Your task to perform on an android device: turn on wifi Image 0: 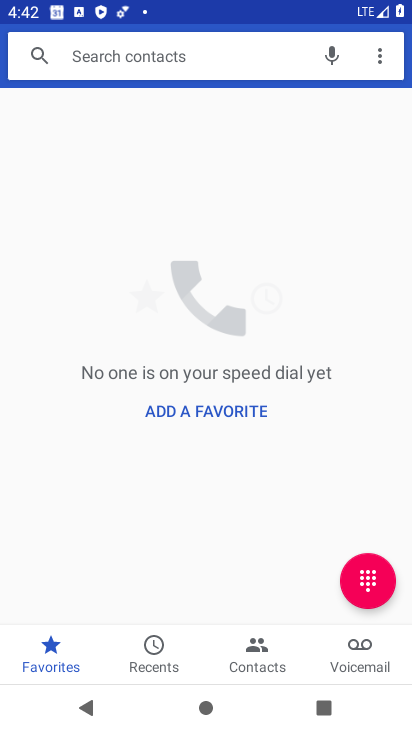
Step 0: press home button
Your task to perform on an android device: turn on wifi Image 1: 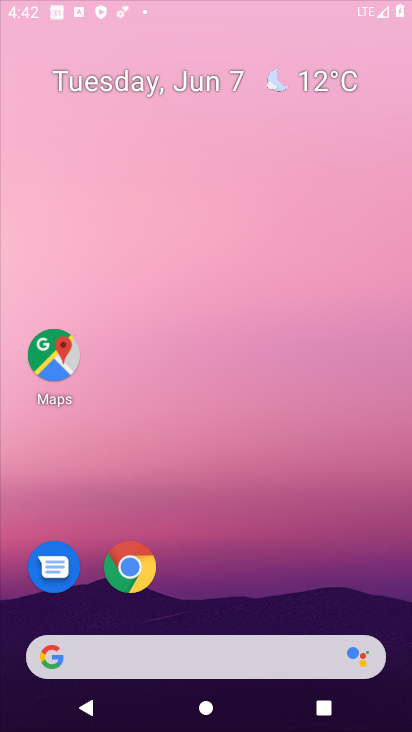
Step 1: drag from (236, 665) to (295, 38)
Your task to perform on an android device: turn on wifi Image 2: 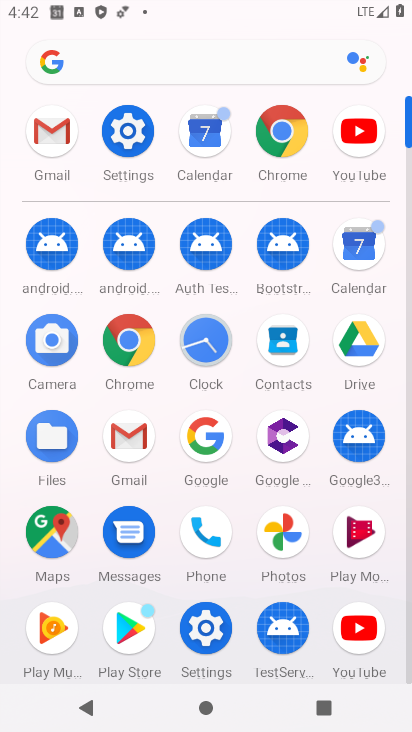
Step 2: click (139, 124)
Your task to perform on an android device: turn on wifi Image 3: 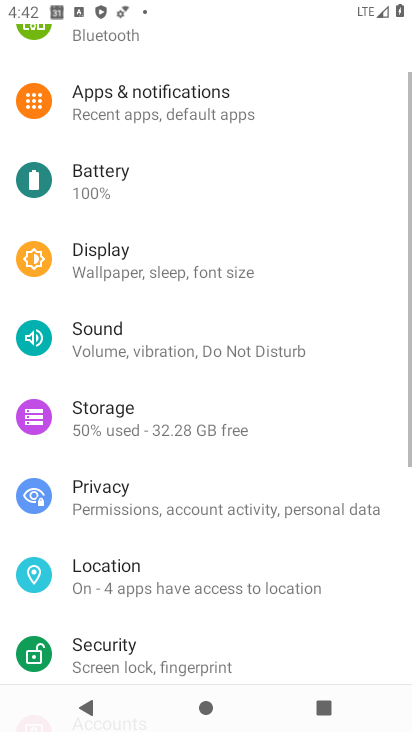
Step 3: drag from (151, 174) to (173, 597)
Your task to perform on an android device: turn on wifi Image 4: 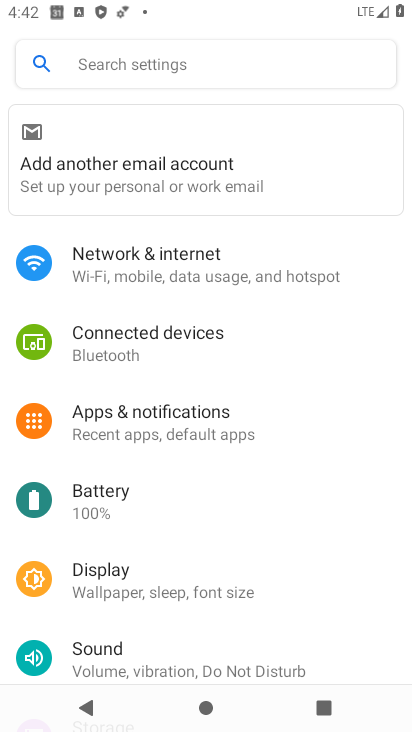
Step 4: click (138, 281)
Your task to perform on an android device: turn on wifi Image 5: 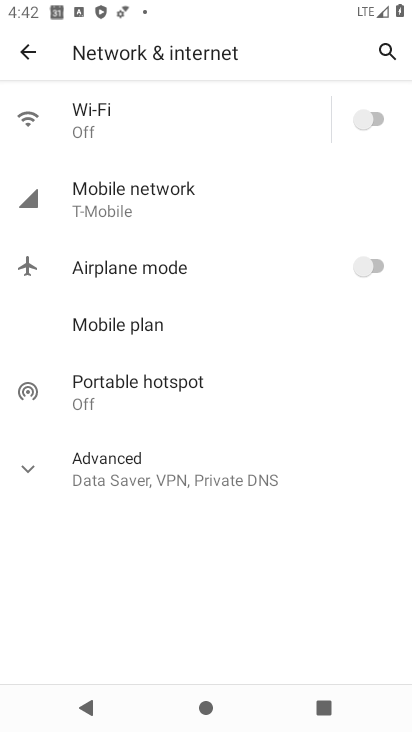
Step 5: click (149, 108)
Your task to perform on an android device: turn on wifi Image 6: 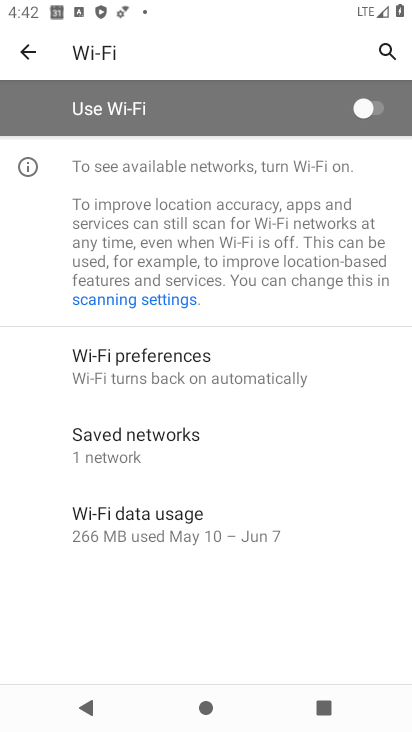
Step 6: click (374, 108)
Your task to perform on an android device: turn on wifi Image 7: 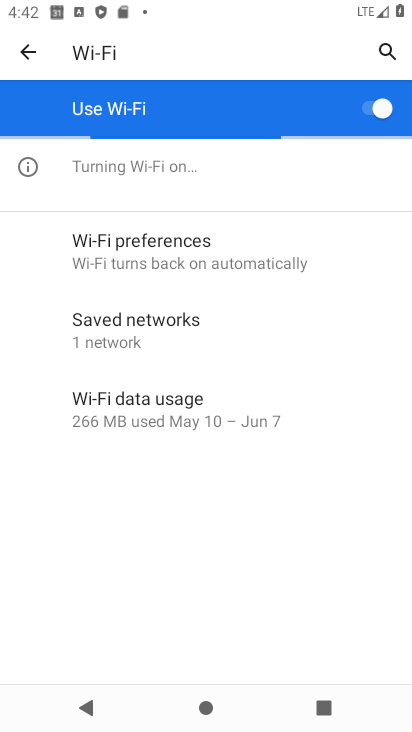
Step 7: task complete